Your task to perform on an android device: Go to settings Image 0: 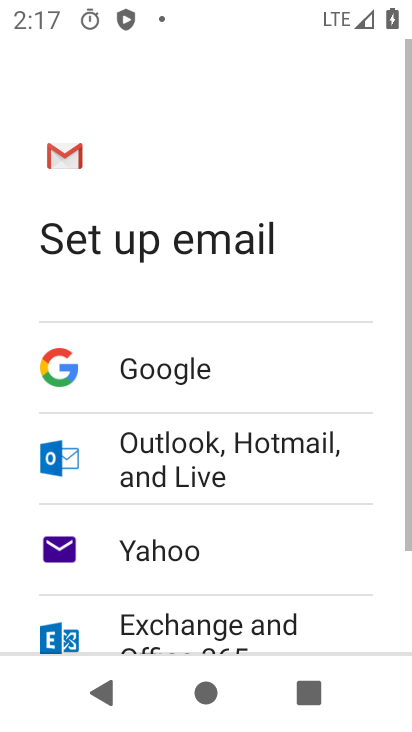
Step 0: press home button
Your task to perform on an android device: Go to settings Image 1: 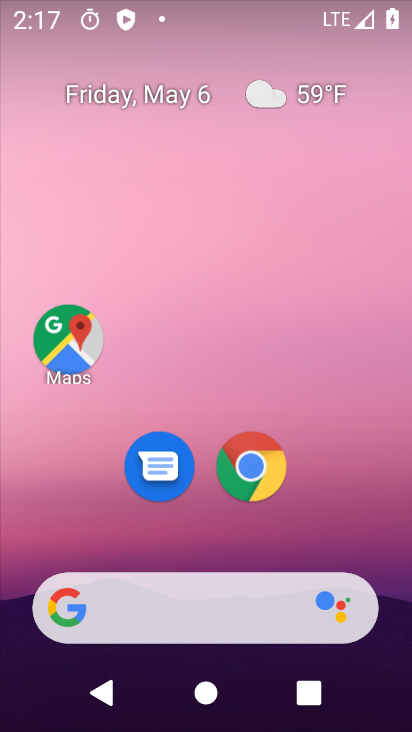
Step 1: drag from (338, 502) to (325, 92)
Your task to perform on an android device: Go to settings Image 2: 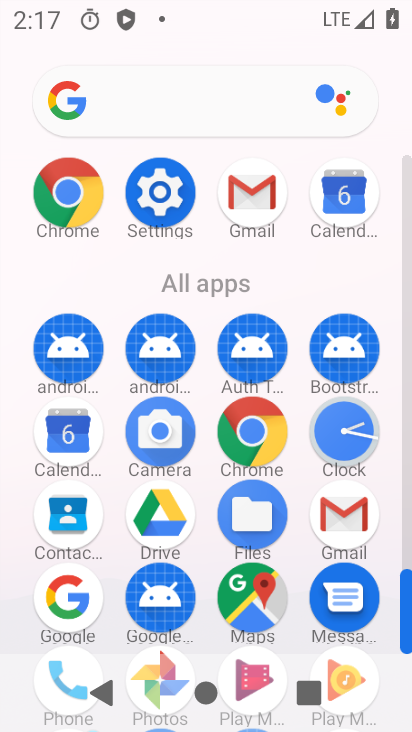
Step 2: click (176, 182)
Your task to perform on an android device: Go to settings Image 3: 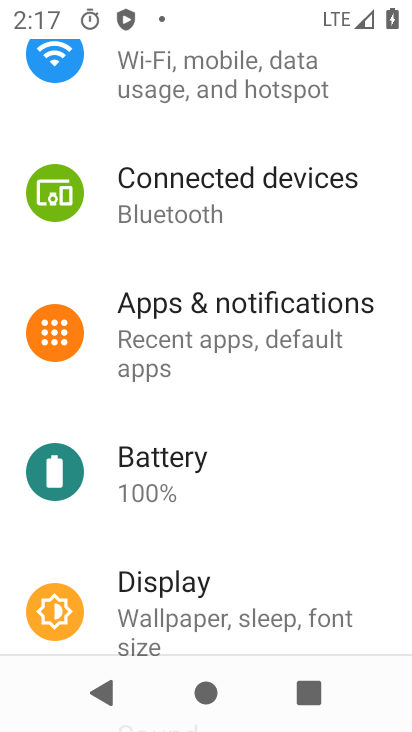
Step 3: task complete